Your task to perform on an android device: turn off notifications in google photos Image 0: 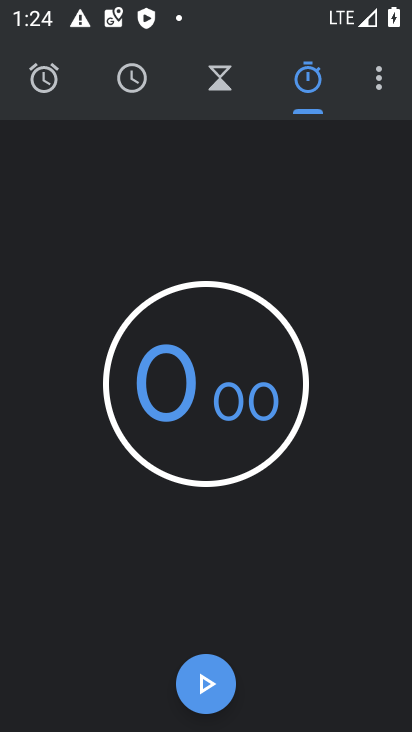
Step 0: press home button
Your task to perform on an android device: turn off notifications in google photos Image 1: 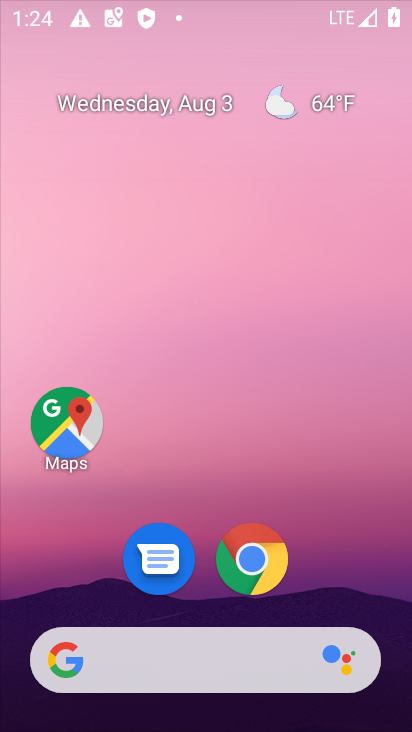
Step 1: drag from (215, 615) to (214, 168)
Your task to perform on an android device: turn off notifications in google photos Image 2: 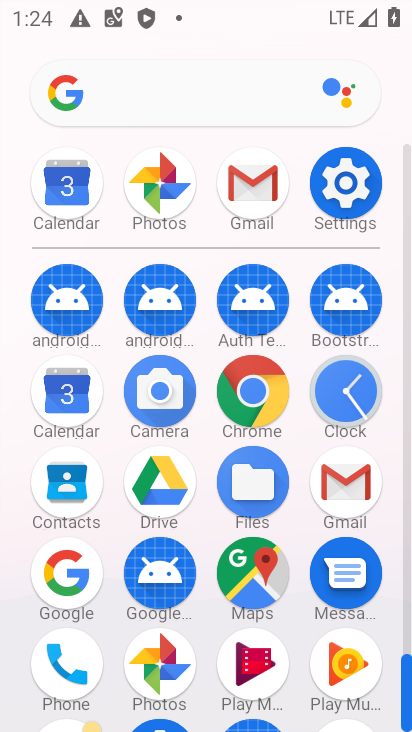
Step 2: click (168, 655)
Your task to perform on an android device: turn off notifications in google photos Image 3: 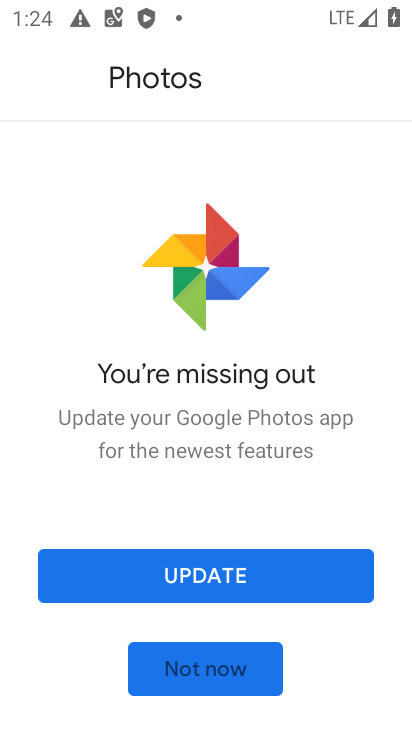
Step 3: task complete